Your task to perform on an android device: Open Chrome and go to settings Image 0: 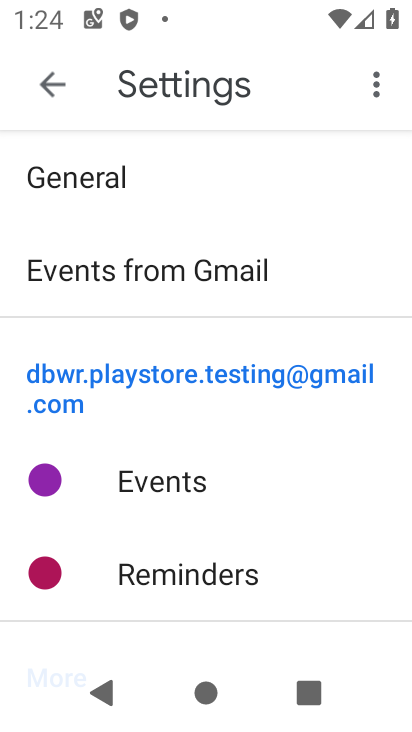
Step 0: press home button
Your task to perform on an android device: Open Chrome and go to settings Image 1: 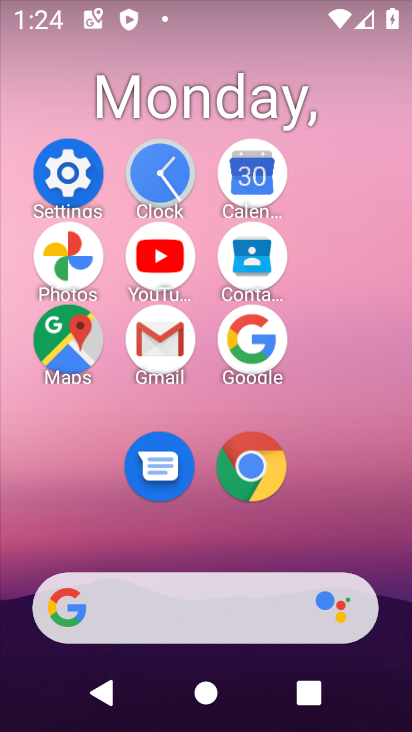
Step 1: click (258, 453)
Your task to perform on an android device: Open Chrome and go to settings Image 2: 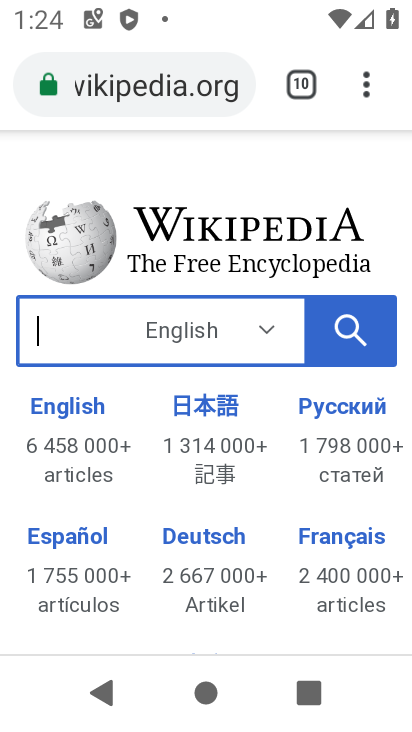
Step 2: click (351, 97)
Your task to perform on an android device: Open Chrome and go to settings Image 3: 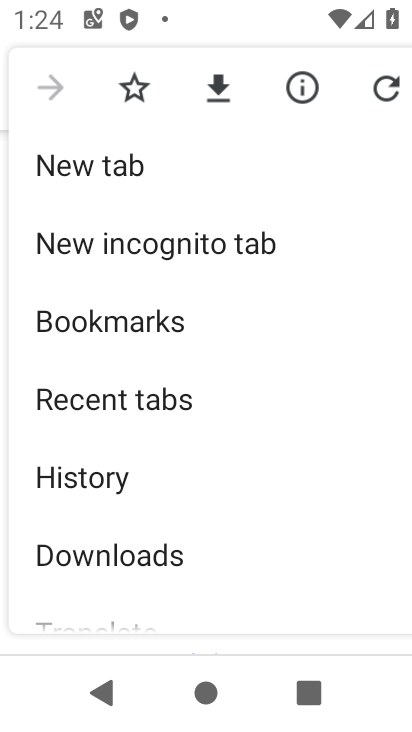
Step 3: drag from (151, 494) to (120, 200)
Your task to perform on an android device: Open Chrome and go to settings Image 4: 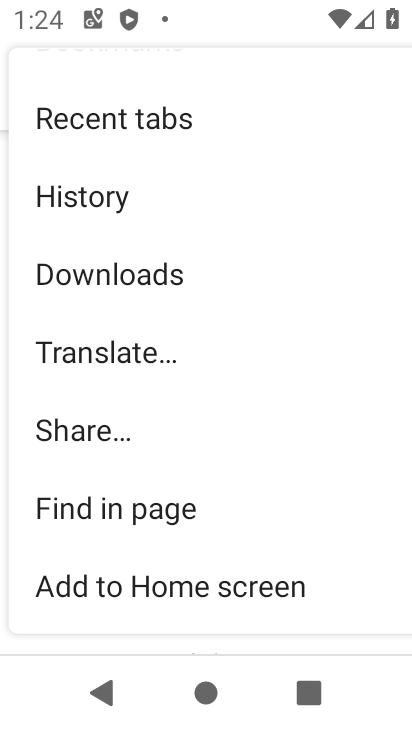
Step 4: drag from (172, 535) to (205, 150)
Your task to perform on an android device: Open Chrome and go to settings Image 5: 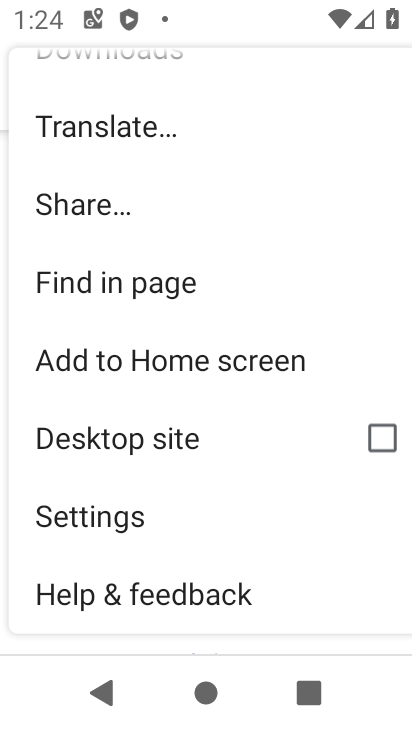
Step 5: click (158, 525)
Your task to perform on an android device: Open Chrome and go to settings Image 6: 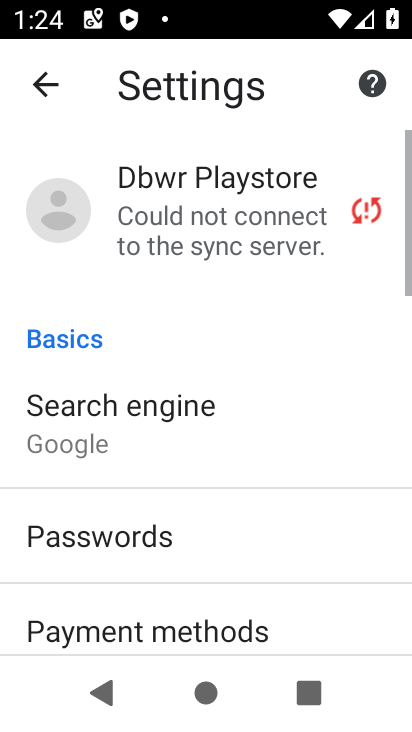
Step 6: task complete